Your task to perform on an android device: turn on the 12-hour format for clock Image 0: 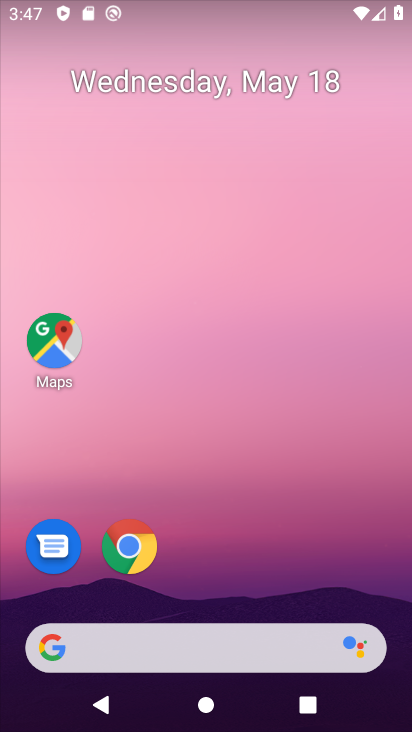
Step 0: drag from (282, 583) to (329, 14)
Your task to perform on an android device: turn on the 12-hour format for clock Image 1: 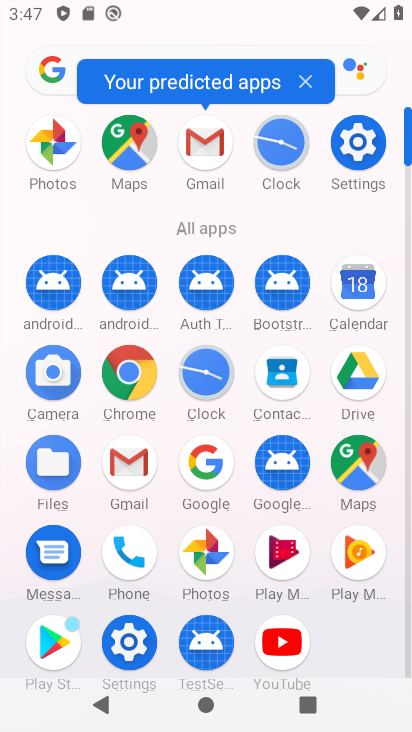
Step 1: click (144, 644)
Your task to perform on an android device: turn on the 12-hour format for clock Image 2: 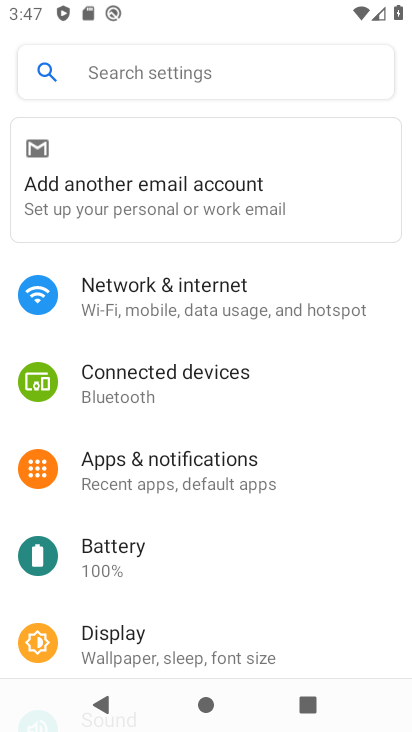
Step 2: drag from (180, 532) to (250, 274)
Your task to perform on an android device: turn on the 12-hour format for clock Image 3: 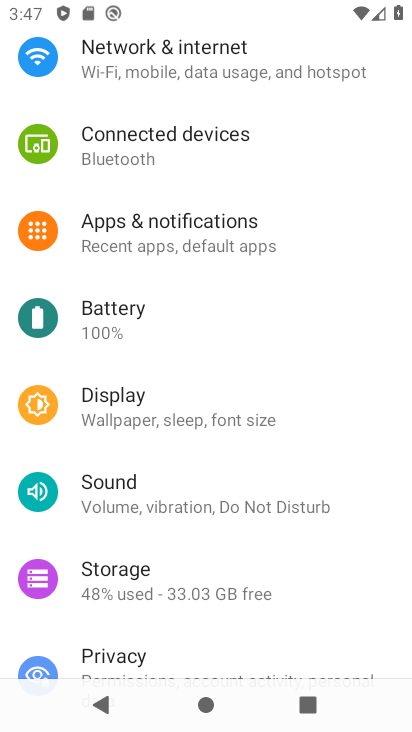
Step 3: drag from (166, 552) to (215, 404)
Your task to perform on an android device: turn on the 12-hour format for clock Image 4: 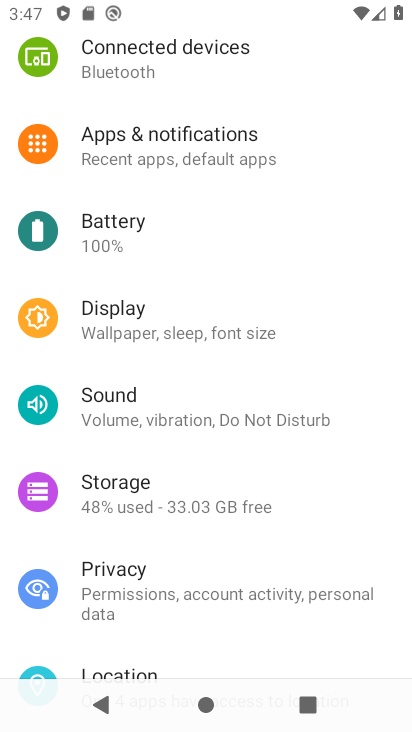
Step 4: click (221, 432)
Your task to perform on an android device: turn on the 12-hour format for clock Image 5: 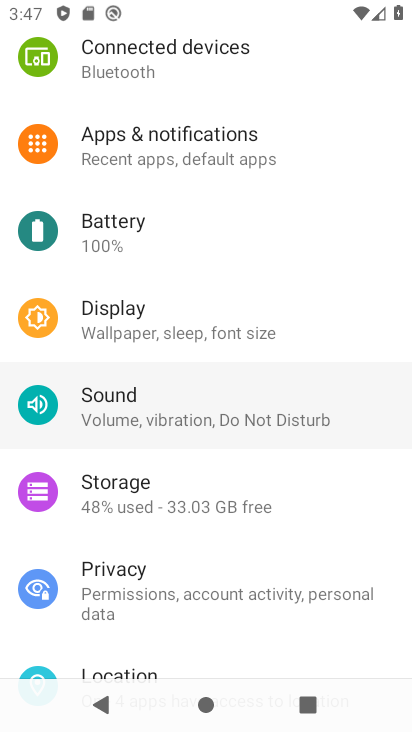
Step 5: click (218, 432)
Your task to perform on an android device: turn on the 12-hour format for clock Image 6: 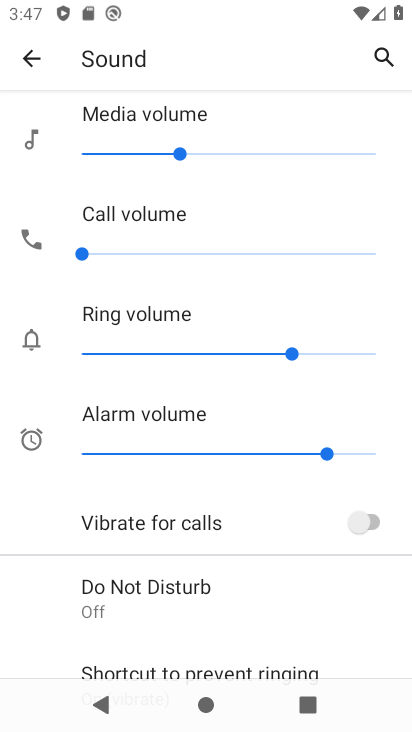
Step 6: click (24, 58)
Your task to perform on an android device: turn on the 12-hour format for clock Image 7: 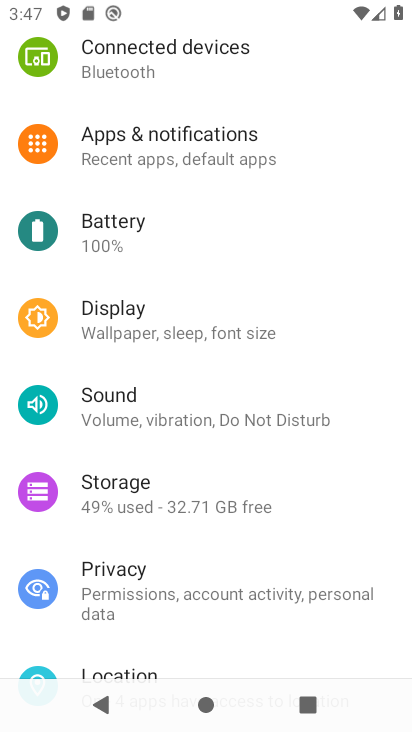
Step 7: drag from (216, 576) to (243, 305)
Your task to perform on an android device: turn on the 12-hour format for clock Image 8: 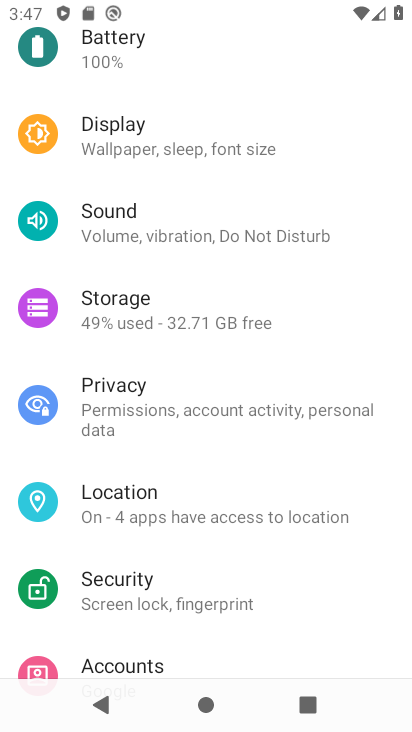
Step 8: drag from (218, 607) to (264, 325)
Your task to perform on an android device: turn on the 12-hour format for clock Image 9: 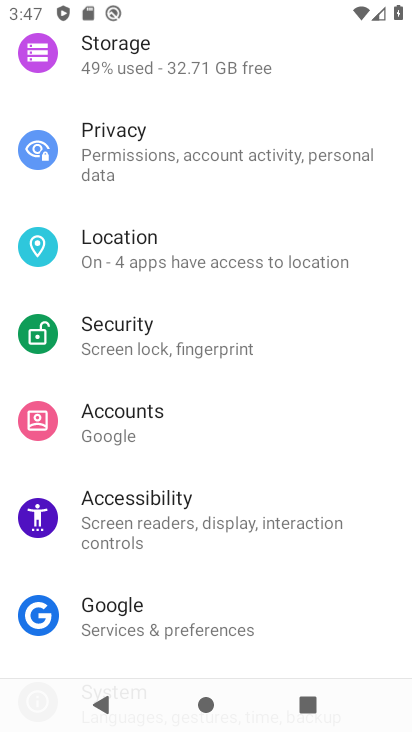
Step 9: drag from (231, 623) to (251, 382)
Your task to perform on an android device: turn on the 12-hour format for clock Image 10: 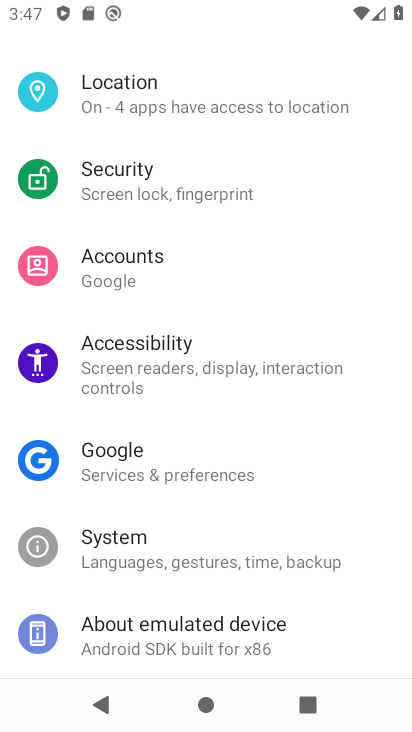
Step 10: click (191, 562)
Your task to perform on an android device: turn on the 12-hour format for clock Image 11: 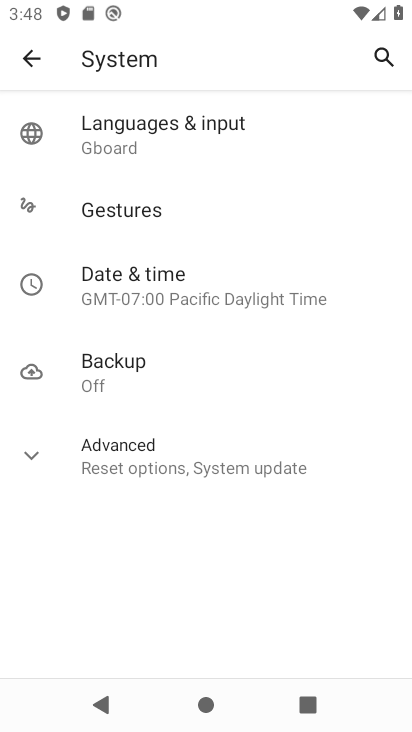
Step 11: click (170, 286)
Your task to perform on an android device: turn on the 12-hour format for clock Image 12: 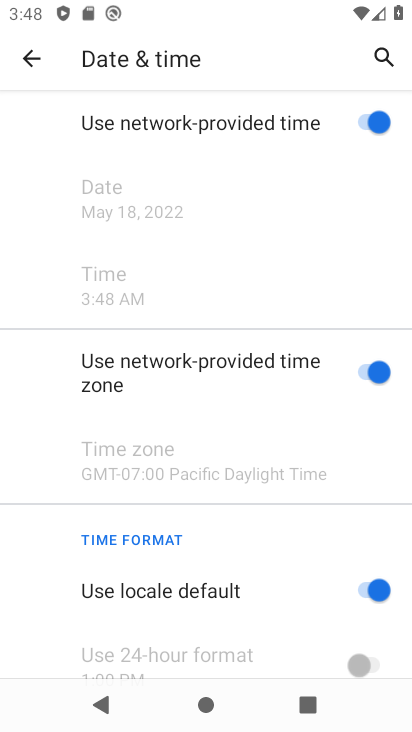
Step 12: task complete